Your task to perform on an android device: Open Google Chrome and click the shortcut for Amazon.com Image 0: 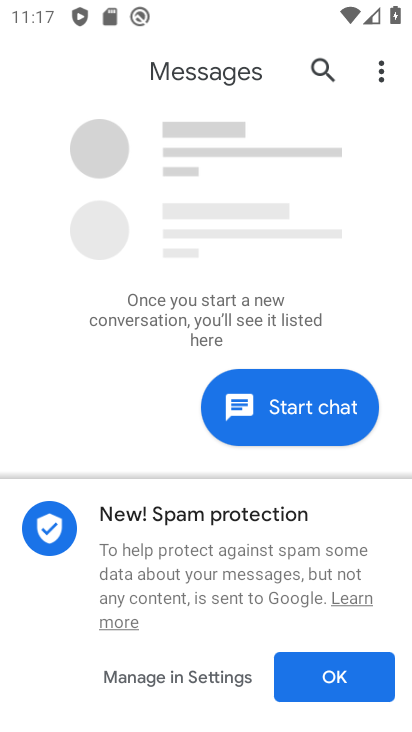
Step 0: press home button
Your task to perform on an android device: Open Google Chrome and click the shortcut for Amazon.com Image 1: 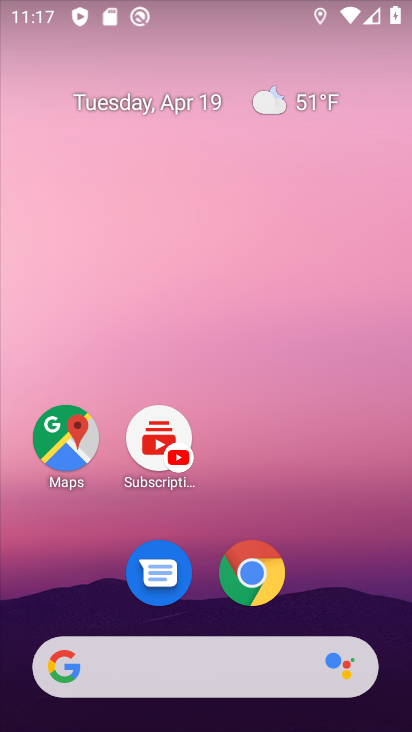
Step 1: click (265, 575)
Your task to perform on an android device: Open Google Chrome and click the shortcut for Amazon.com Image 2: 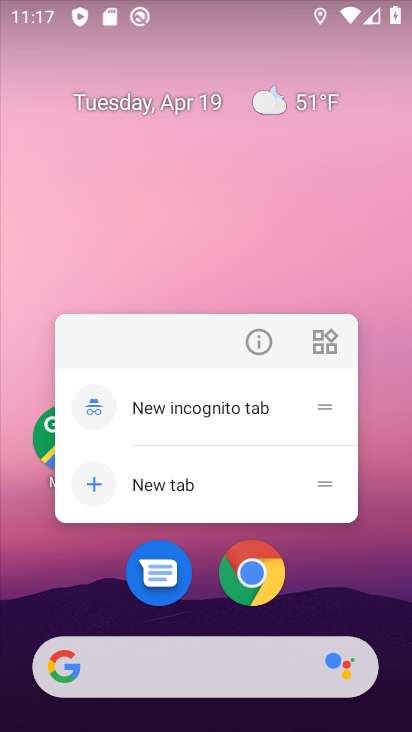
Step 2: click (243, 575)
Your task to perform on an android device: Open Google Chrome and click the shortcut for Amazon.com Image 3: 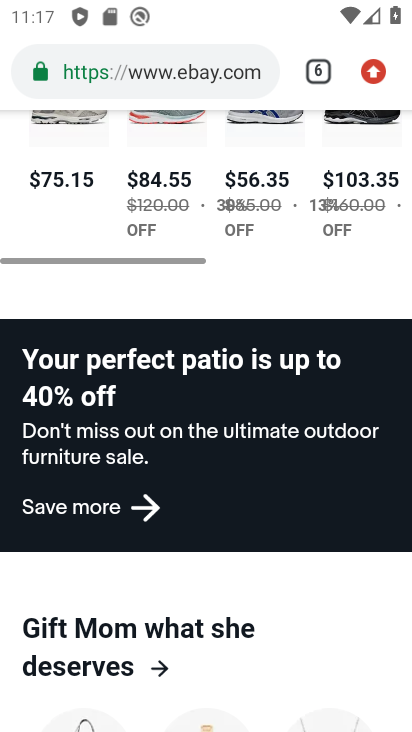
Step 3: click (316, 74)
Your task to perform on an android device: Open Google Chrome and click the shortcut for Amazon.com Image 4: 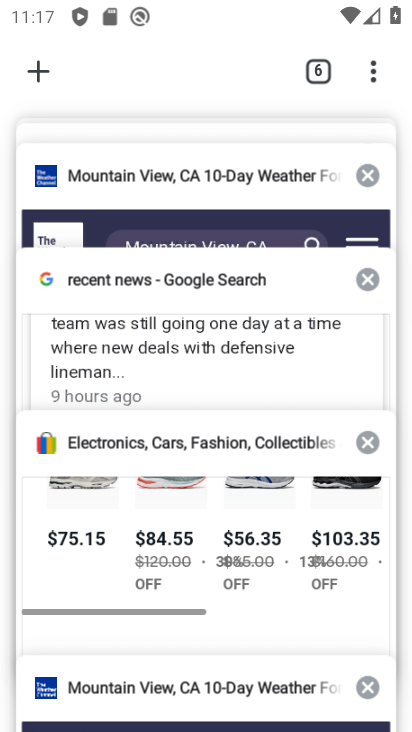
Step 4: click (34, 76)
Your task to perform on an android device: Open Google Chrome and click the shortcut for Amazon.com Image 5: 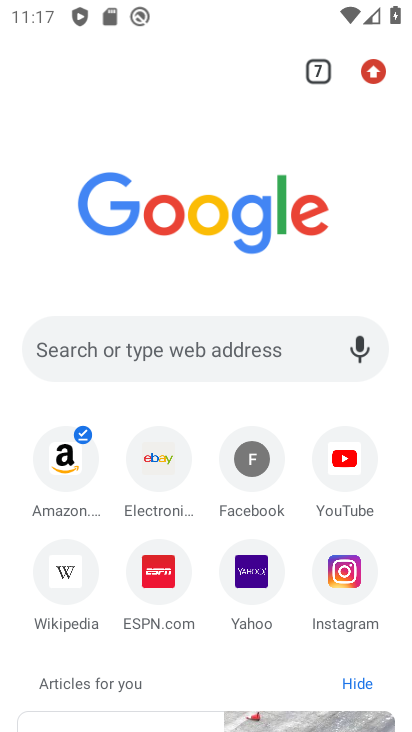
Step 5: click (70, 464)
Your task to perform on an android device: Open Google Chrome and click the shortcut for Amazon.com Image 6: 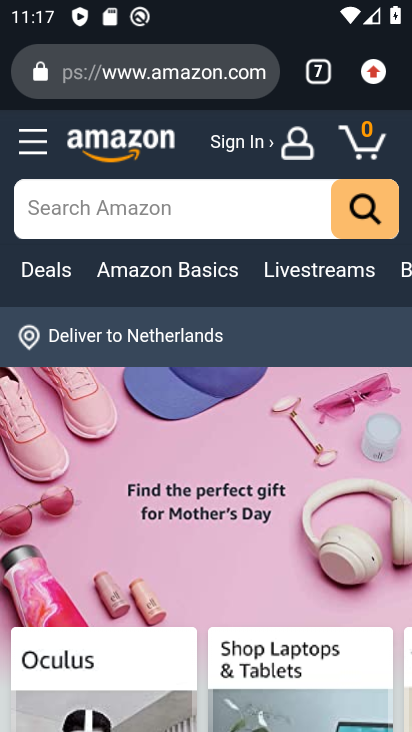
Step 6: task complete